Your task to perform on an android device: turn off javascript in the chrome app Image 0: 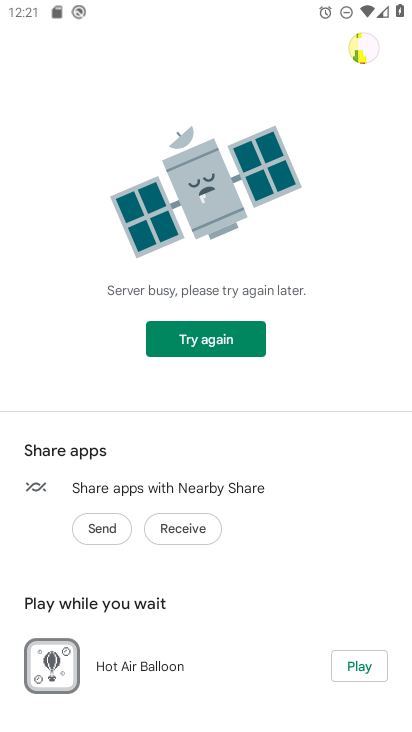
Step 0: press home button
Your task to perform on an android device: turn off javascript in the chrome app Image 1: 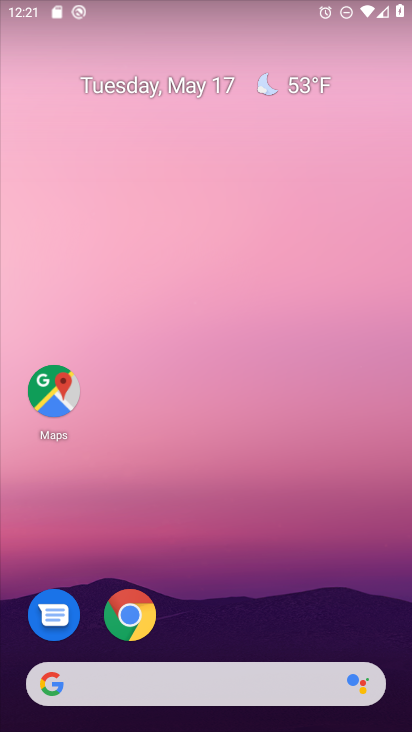
Step 1: click (130, 619)
Your task to perform on an android device: turn off javascript in the chrome app Image 2: 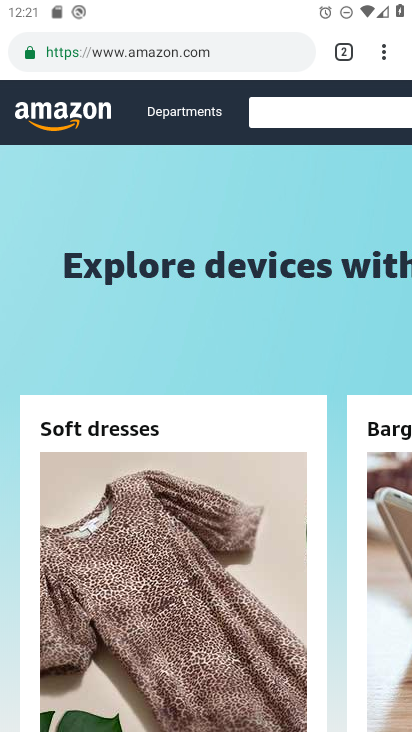
Step 2: click (388, 51)
Your task to perform on an android device: turn off javascript in the chrome app Image 3: 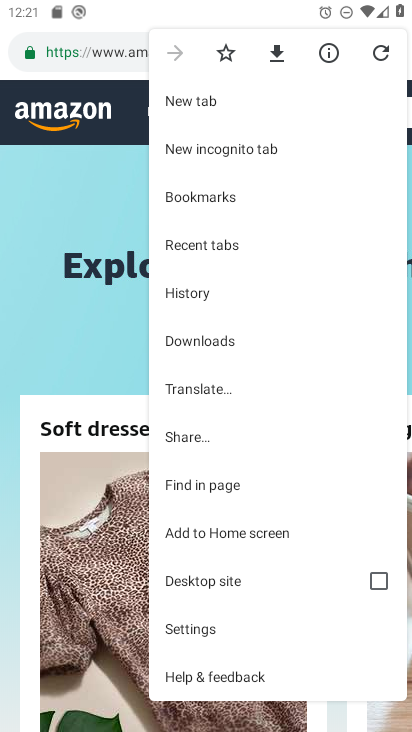
Step 3: click (176, 634)
Your task to perform on an android device: turn off javascript in the chrome app Image 4: 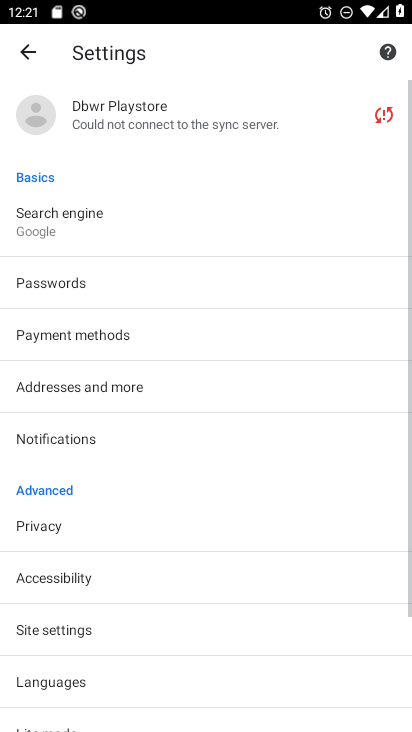
Step 4: drag from (160, 696) to (172, 414)
Your task to perform on an android device: turn off javascript in the chrome app Image 5: 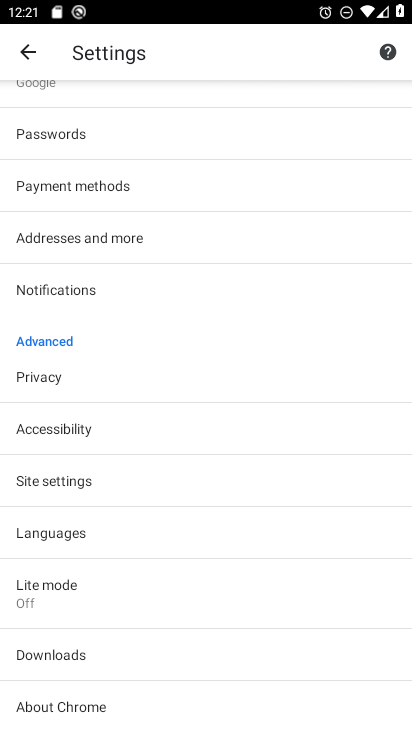
Step 5: click (40, 477)
Your task to perform on an android device: turn off javascript in the chrome app Image 6: 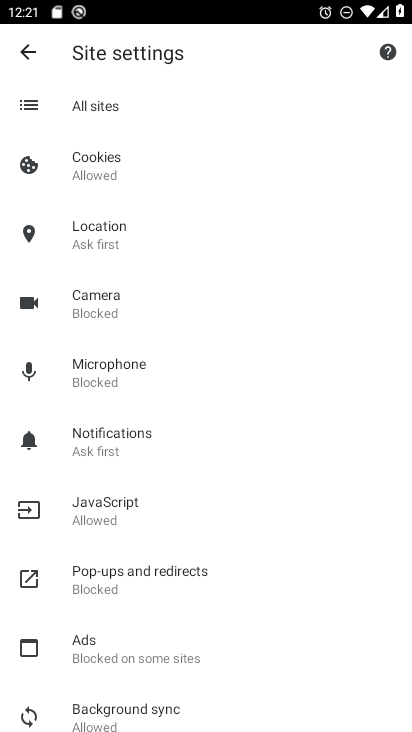
Step 6: click (87, 517)
Your task to perform on an android device: turn off javascript in the chrome app Image 7: 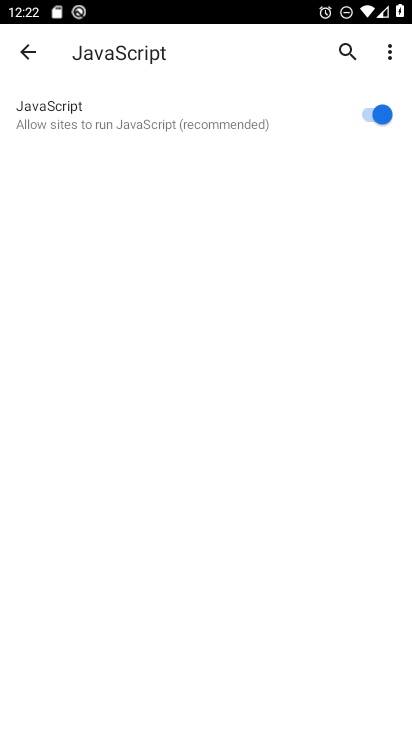
Step 7: click (373, 115)
Your task to perform on an android device: turn off javascript in the chrome app Image 8: 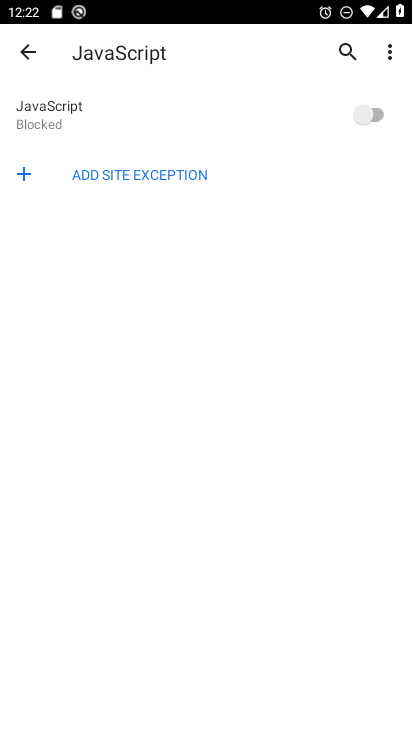
Step 8: task complete